Your task to perform on an android device: Open notification settings Image 0: 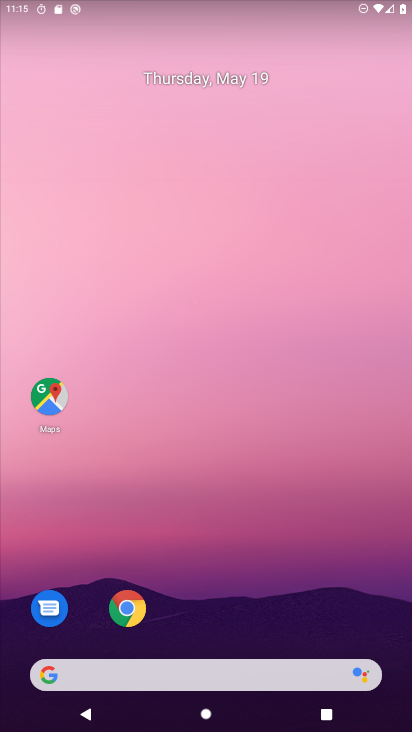
Step 0: drag from (386, 679) to (386, 224)
Your task to perform on an android device: Open notification settings Image 1: 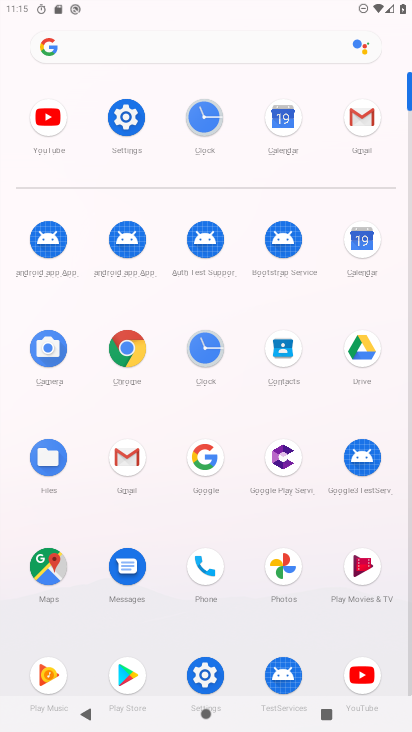
Step 1: click (117, 123)
Your task to perform on an android device: Open notification settings Image 2: 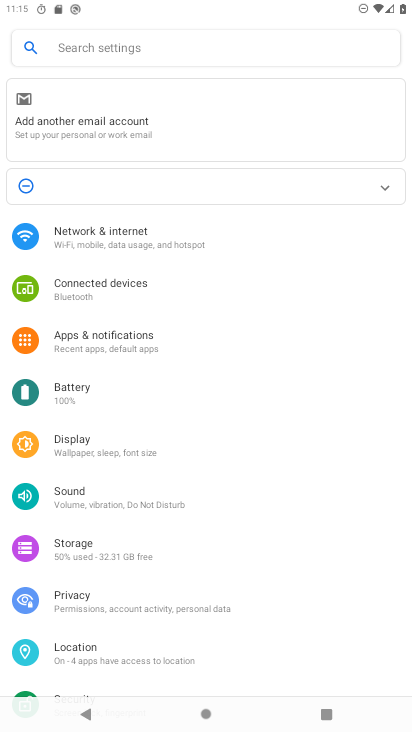
Step 2: click (83, 343)
Your task to perform on an android device: Open notification settings Image 3: 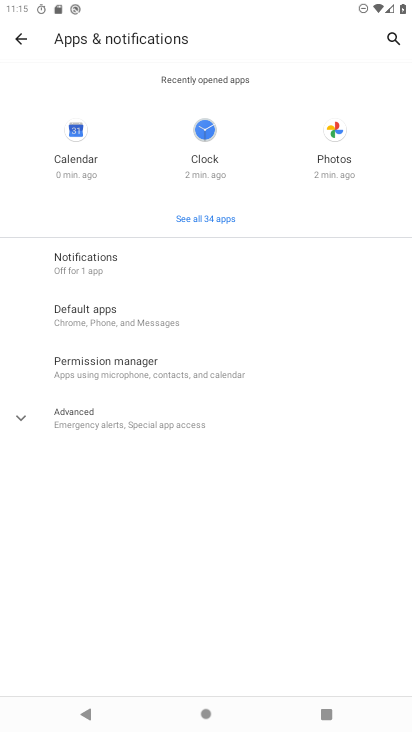
Step 3: click (87, 268)
Your task to perform on an android device: Open notification settings Image 4: 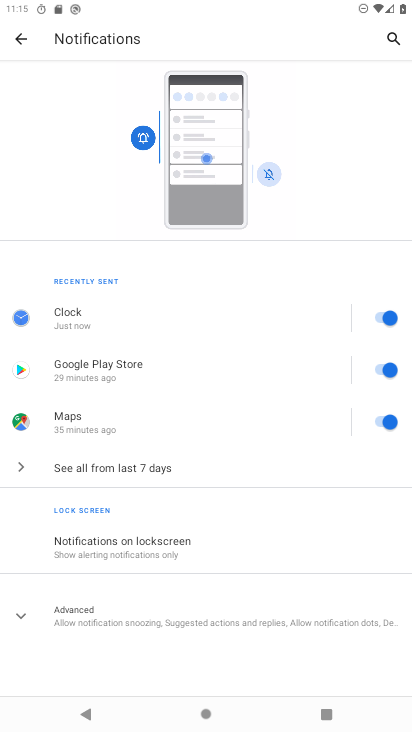
Step 4: task complete